Your task to perform on an android device: Go to eBay Image 0: 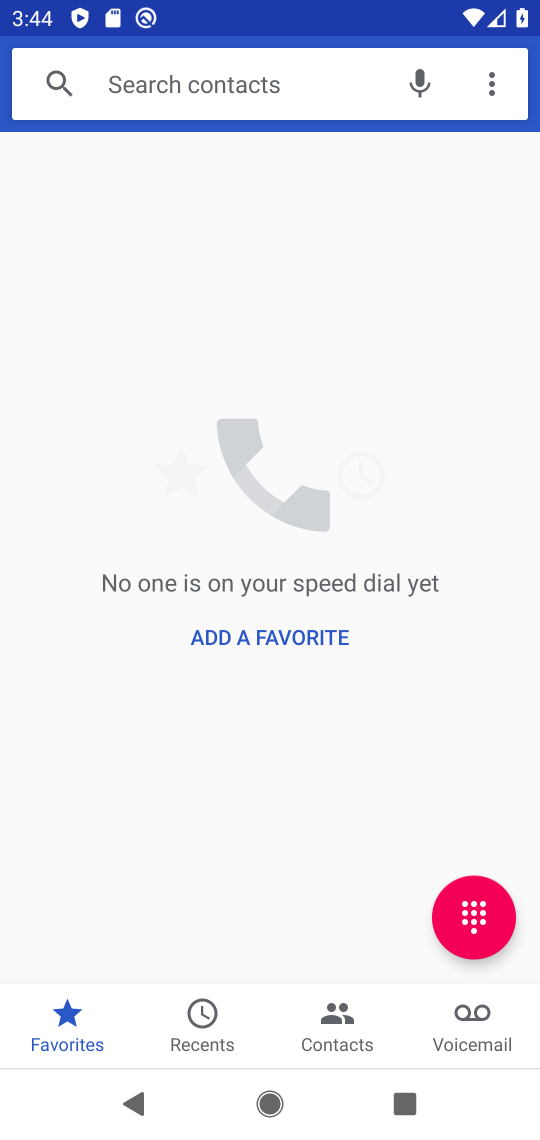
Step 0: press home button
Your task to perform on an android device: Go to eBay Image 1: 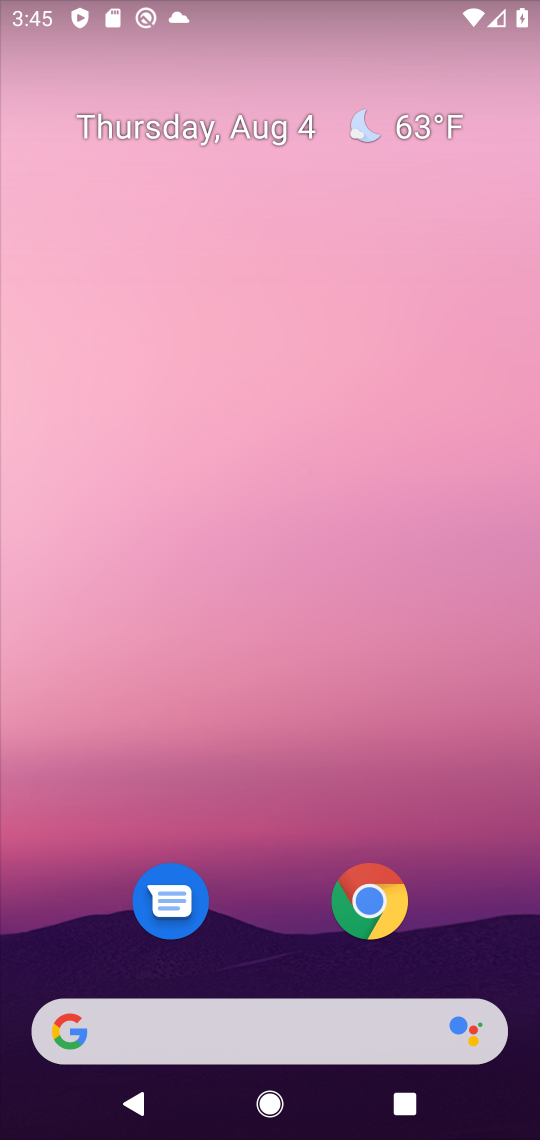
Step 1: click (359, 901)
Your task to perform on an android device: Go to eBay Image 2: 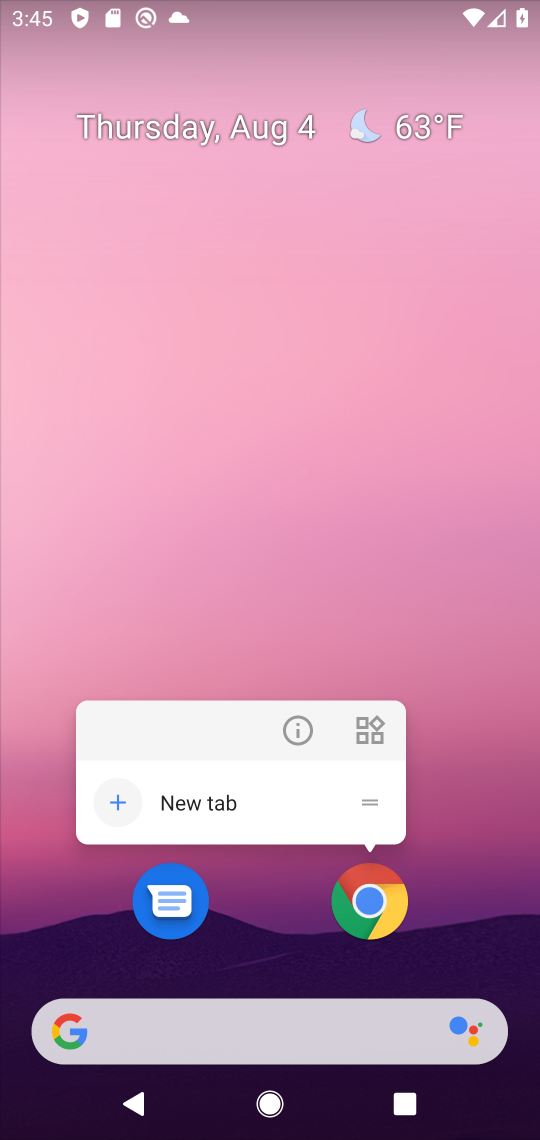
Step 2: click (359, 901)
Your task to perform on an android device: Go to eBay Image 3: 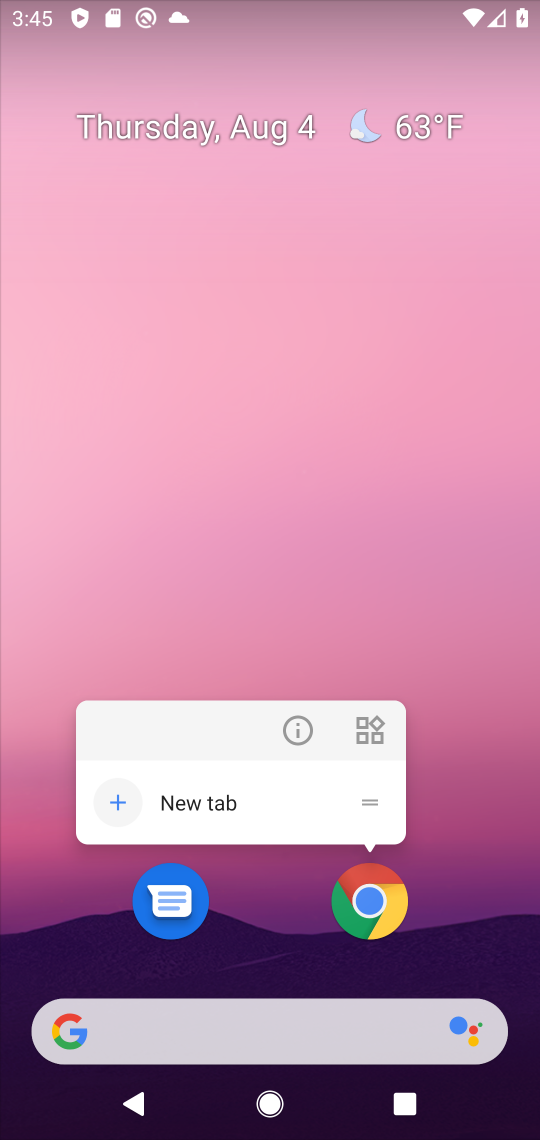
Step 3: click (251, 931)
Your task to perform on an android device: Go to eBay Image 4: 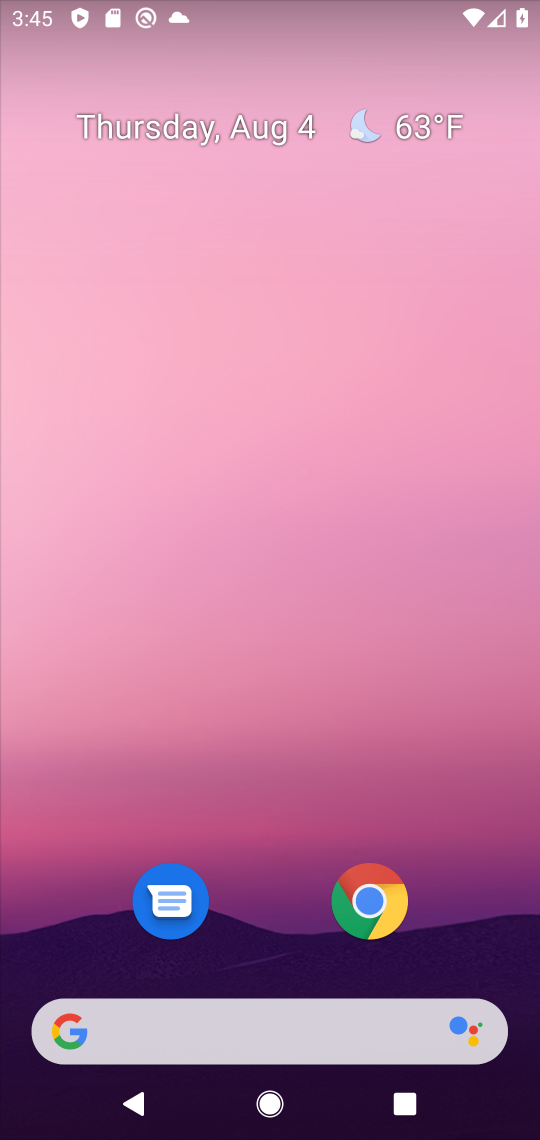
Step 4: drag from (247, 904) to (292, 70)
Your task to perform on an android device: Go to eBay Image 5: 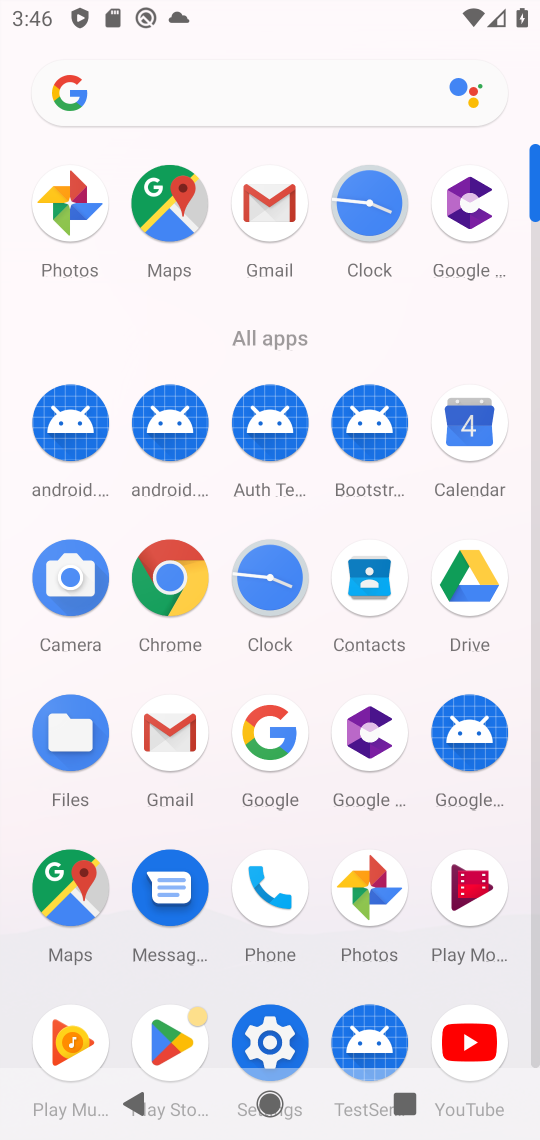
Step 5: click (169, 604)
Your task to perform on an android device: Go to eBay Image 6: 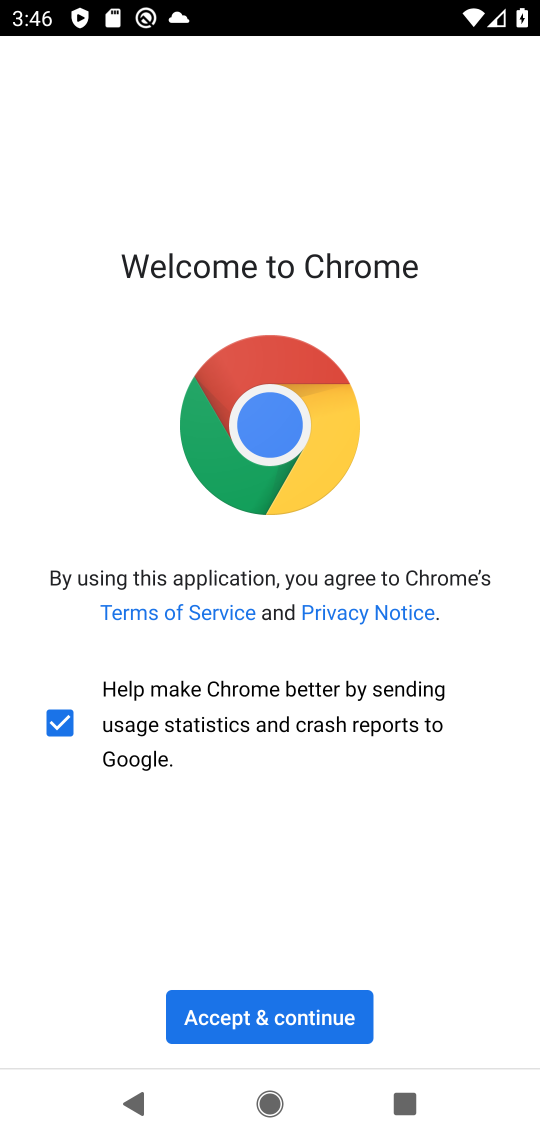
Step 6: click (255, 1015)
Your task to perform on an android device: Go to eBay Image 7: 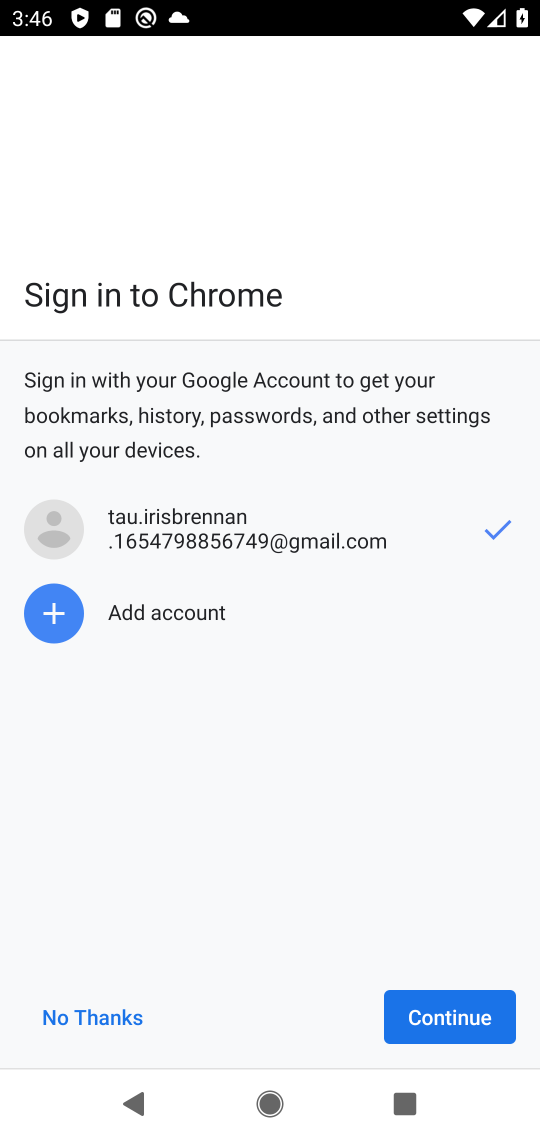
Step 7: click (477, 1020)
Your task to perform on an android device: Go to eBay Image 8: 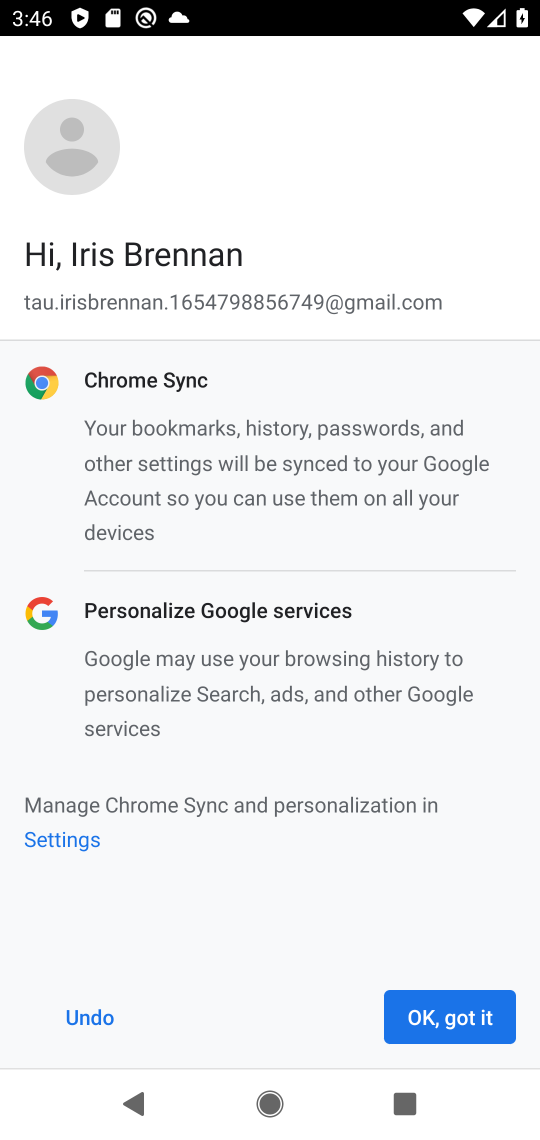
Step 8: click (477, 1020)
Your task to perform on an android device: Go to eBay Image 9: 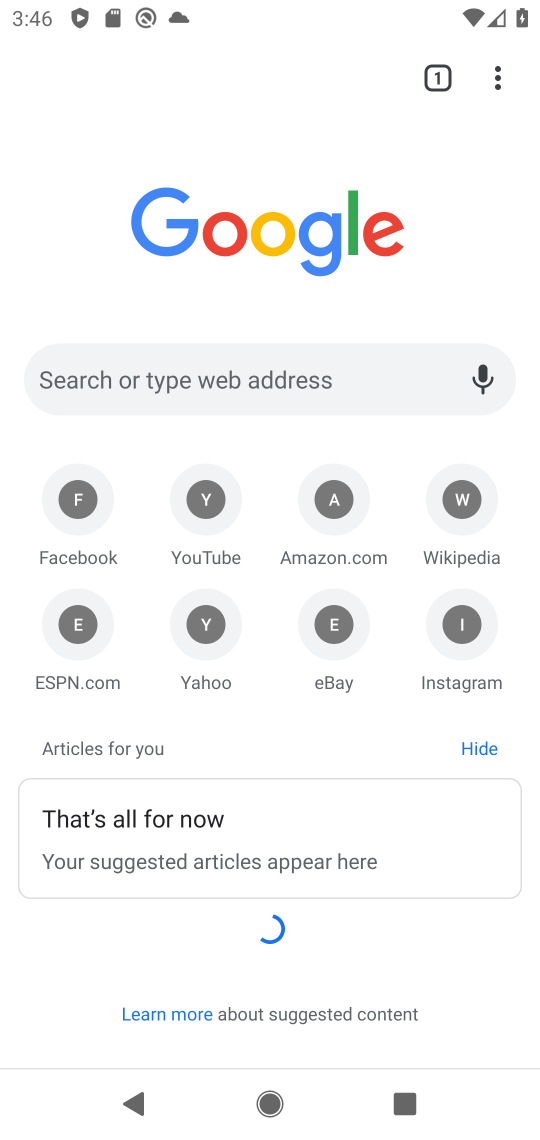
Step 9: click (217, 376)
Your task to perform on an android device: Go to eBay Image 10: 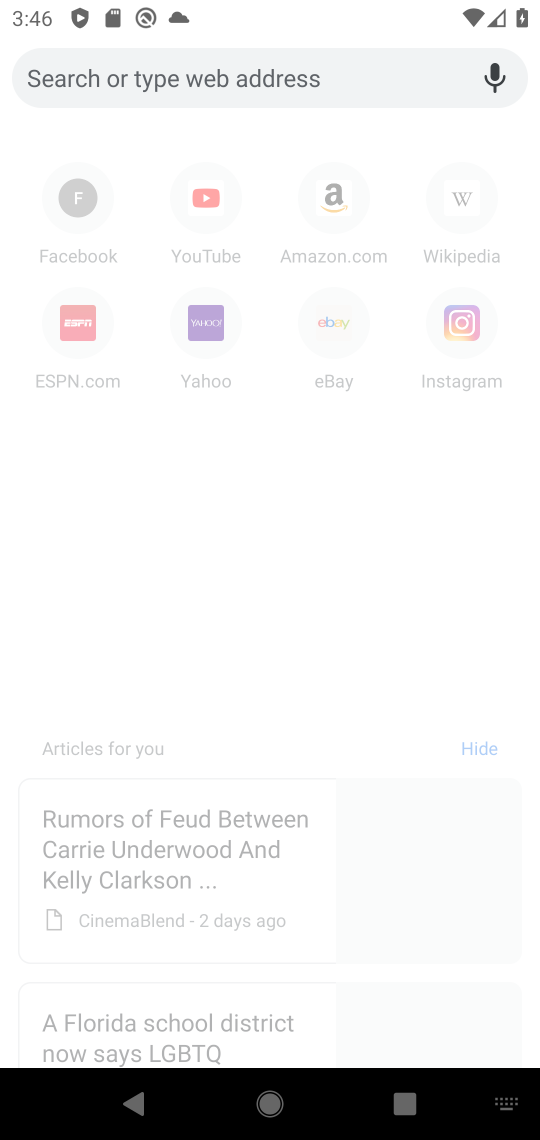
Step 10: type " eBay"
Your task to perform on an android device: Go to eBay Image 11: 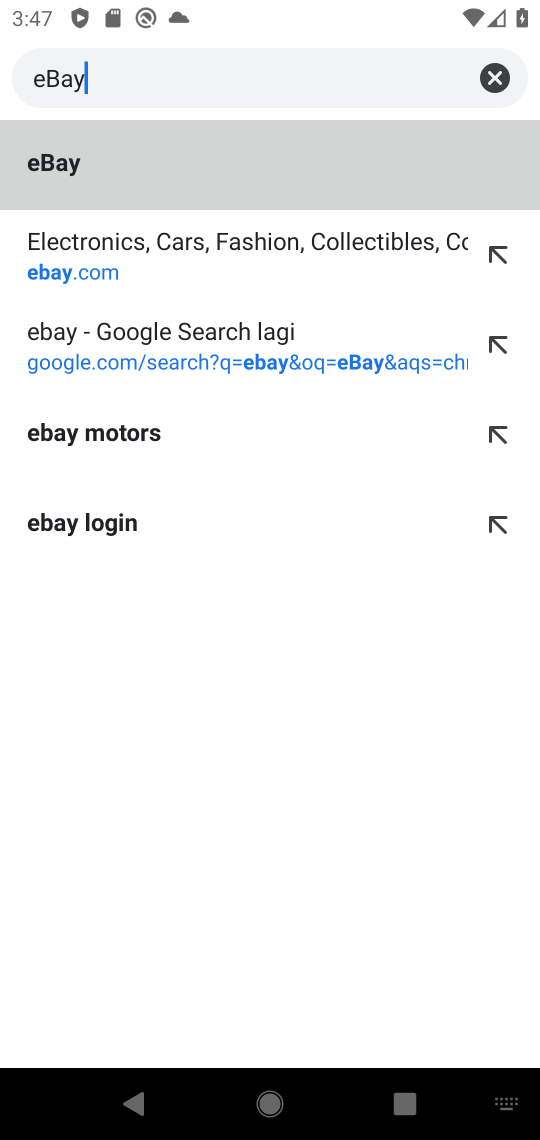
Step 11: click (90, 267)
Your task to perform on an android device: Go to eBay Image 12: 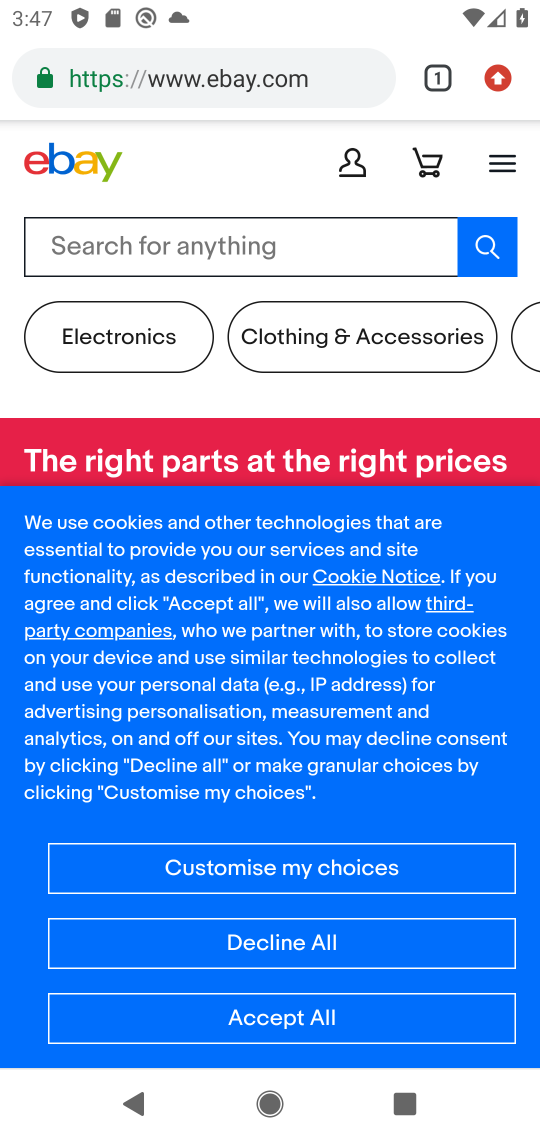
Step 12: task complete